Your task to perform on an android device: allow cookies in the chrome app Image 0: 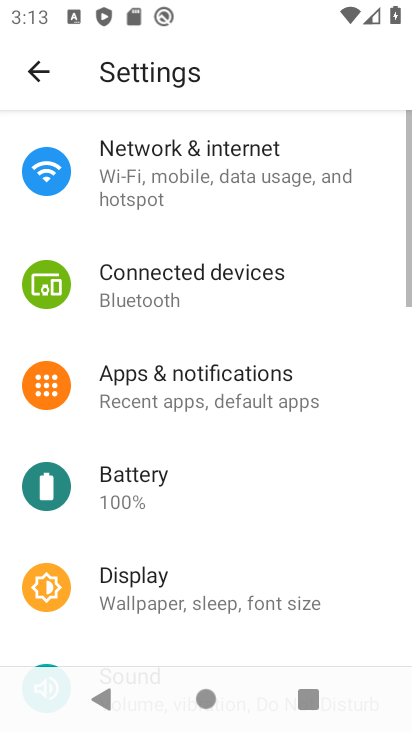
Step 0: press home button
Your task to perform on an android device: allow cookies in the chrome app Image 1: 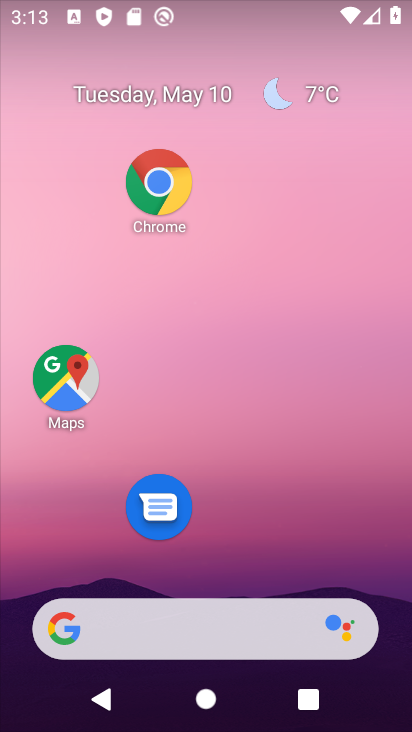
Step 1: click (148, 196)
Your task to perform on an android device: allow cookies in the chrome app Image 2: 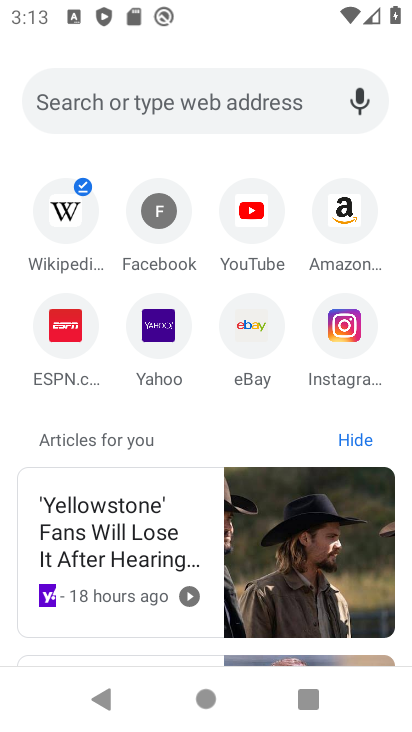
Step 2: drag from (297, 167) to (199, 598)
Your task to perform on an android device: allow cookies in the chrome app Image 3: 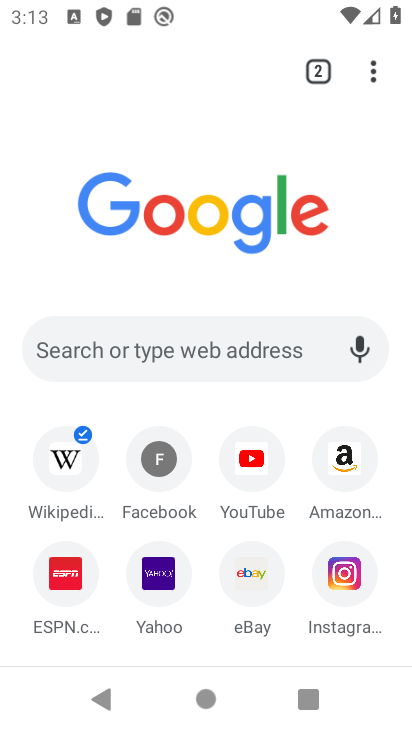
Step 3: click (375, 64)
Your task to perform on an android device: allow cookies in the chrome app Image 4: 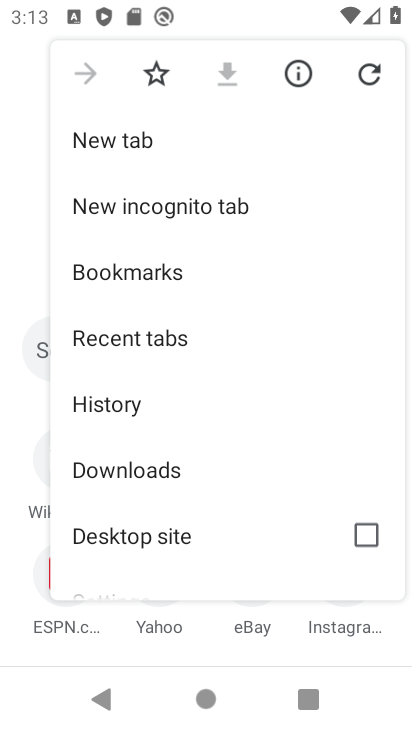
Step 4: drag from (156, 502) to (141, 184)
Your task to perform on an android device: allow cookies in the chrome app Image 5: 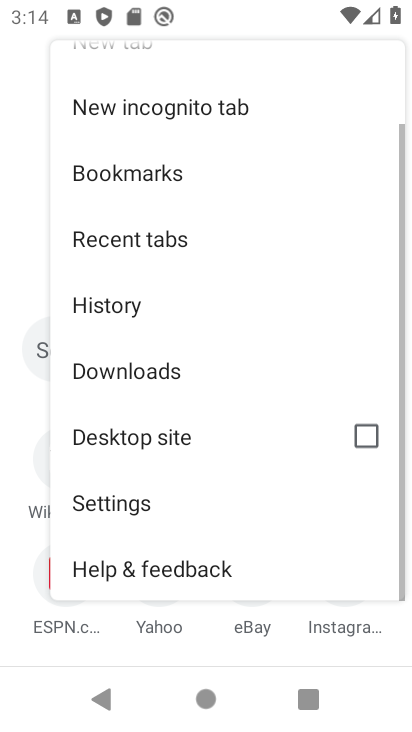
Step 5: click (141, 490)
Your task to perform on an android device: allow cookies in the chrome app Image 6: 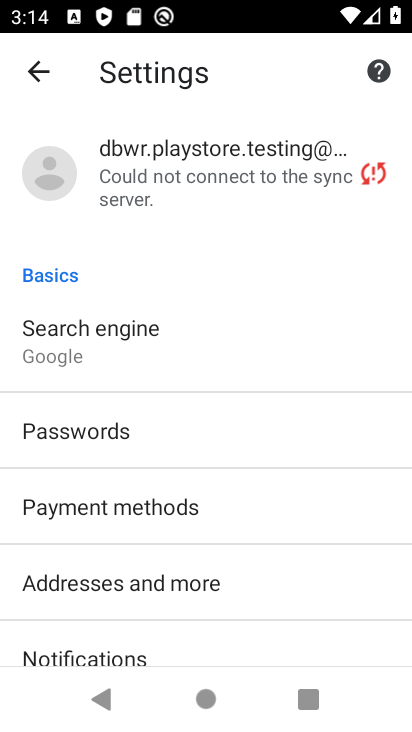
Step 6: drag from (159, 573) to (146, 285)
Your task to perform on an android device: allow cookies in the chrome app Image 7: 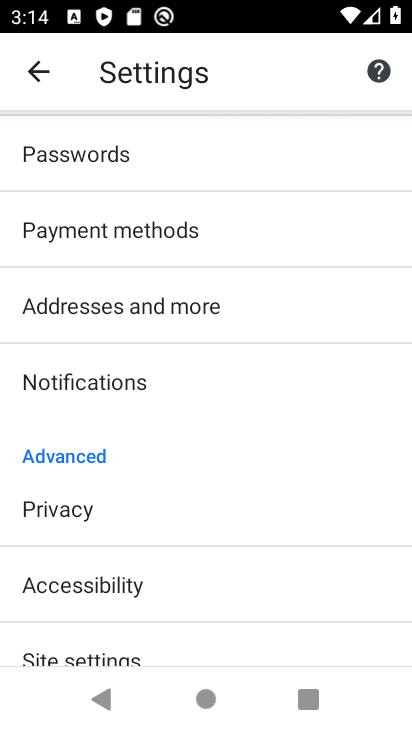
Step 7: click (134, 629)
Your task to perform on an android device: allow cookies in the chrome app Image 8: 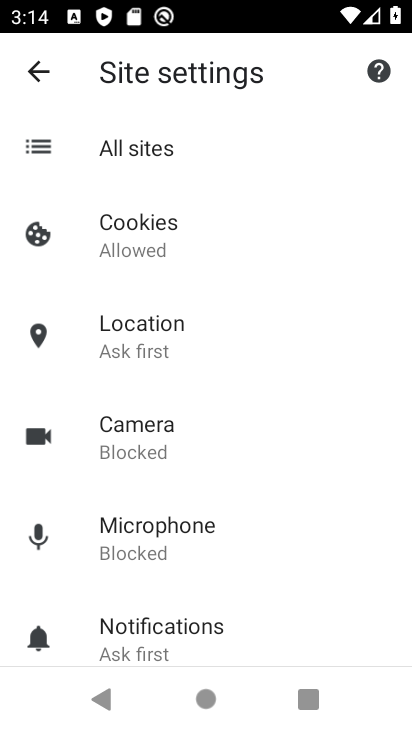
Step 8: task complete